Your task to perform on an android device: Open Chrome and go to settings Image 0: 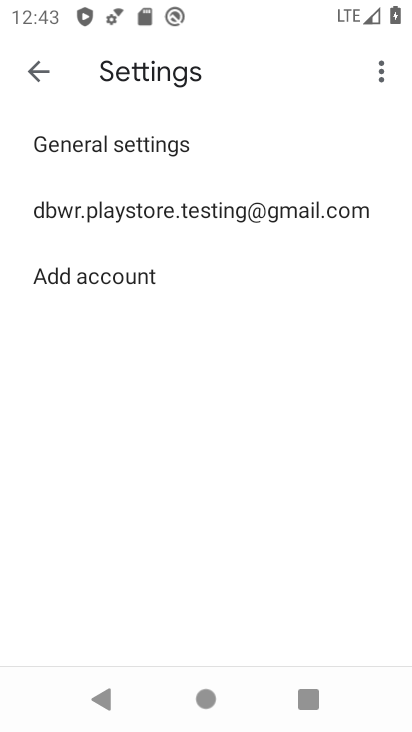
Step 0: press home button
Your task to perform on an android device: Open Chrome and go to settings Image 1: 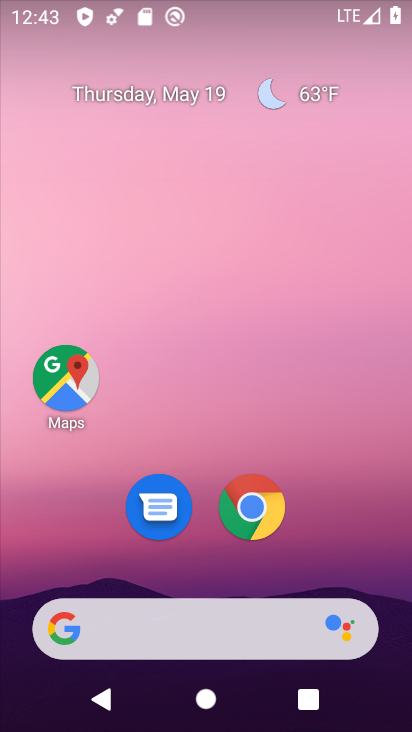
Step 1: click (244, 495)
Your task to perform on an android device: Open Chrome and go to settings Image 2: 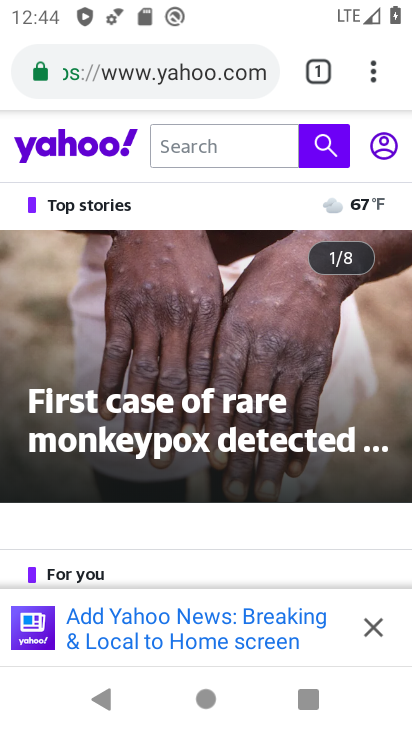
Step 2: click (373, 70)
Your task to perform on an android device: Open Chrome and go to settings Image 3: 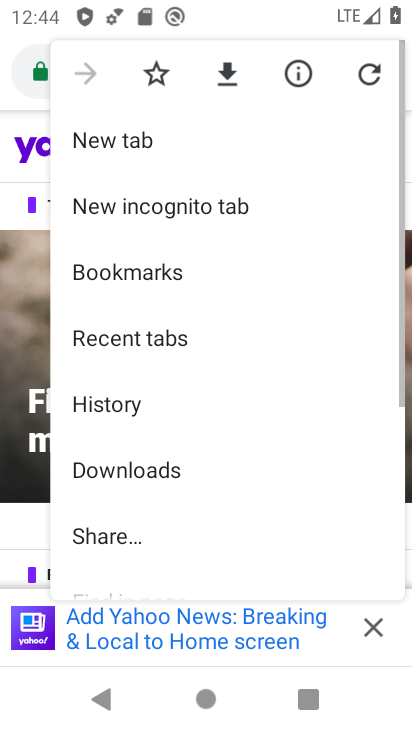
Step 3: drag from (192, 543) to (238, 235)
Your task to perform on an android device: Open Chrome and go to settings Image 4: 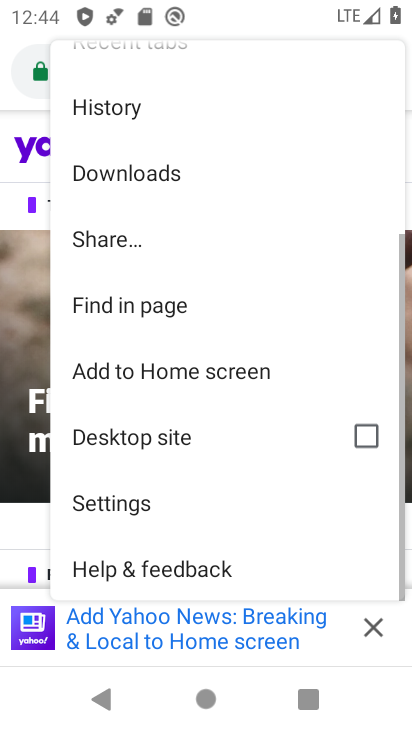
Step 4: click (139, 506)
Your task to perform on an android device: Open Chrome and go to settings Image 5: 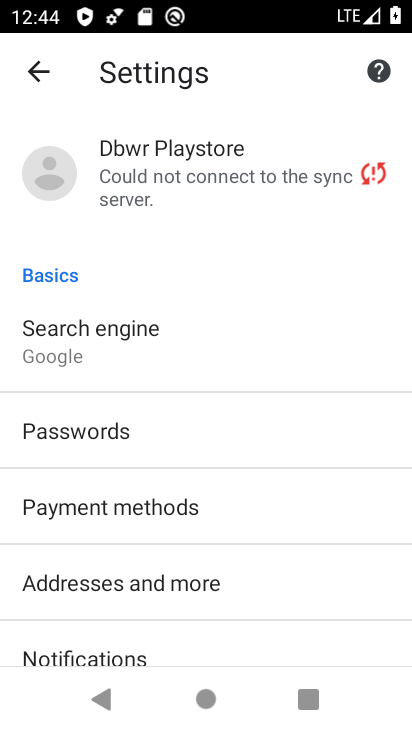
Step 5: task complete